Your task to perform on an android device: turn on the 24-hour format for clock Image 0: 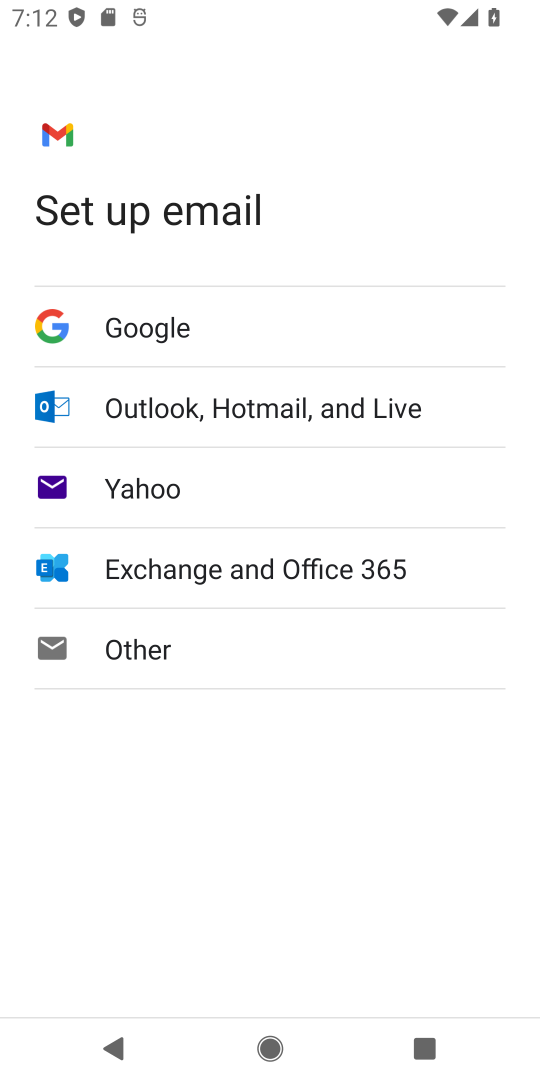
Step 0: press home button
Your task to perform on an android device: turn on the 24-hour format for clock Image 1: 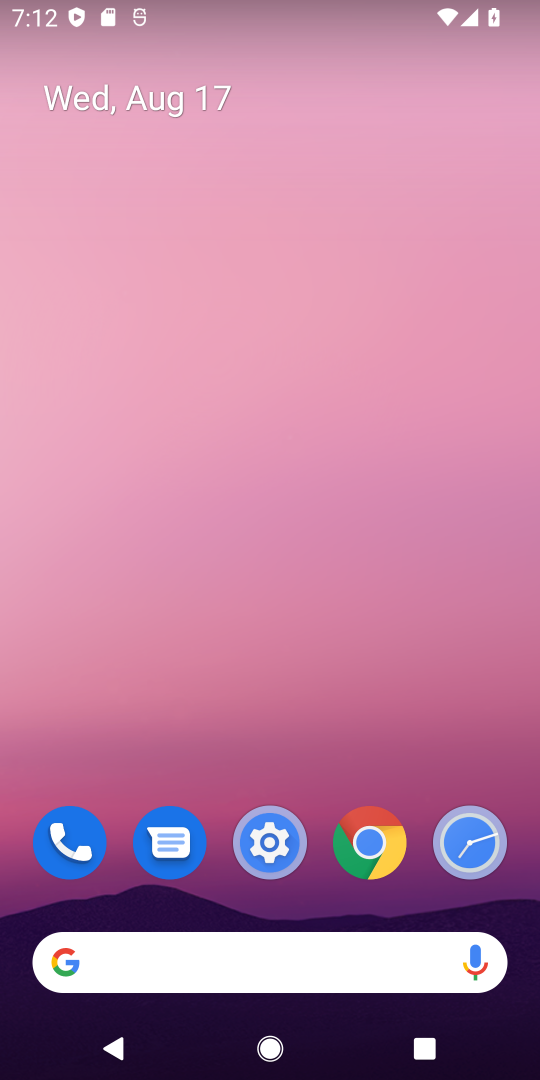
Step 1: click (460, 847)
Your task to perform on an android device: turn on the 24-hour format for clock Image 2: 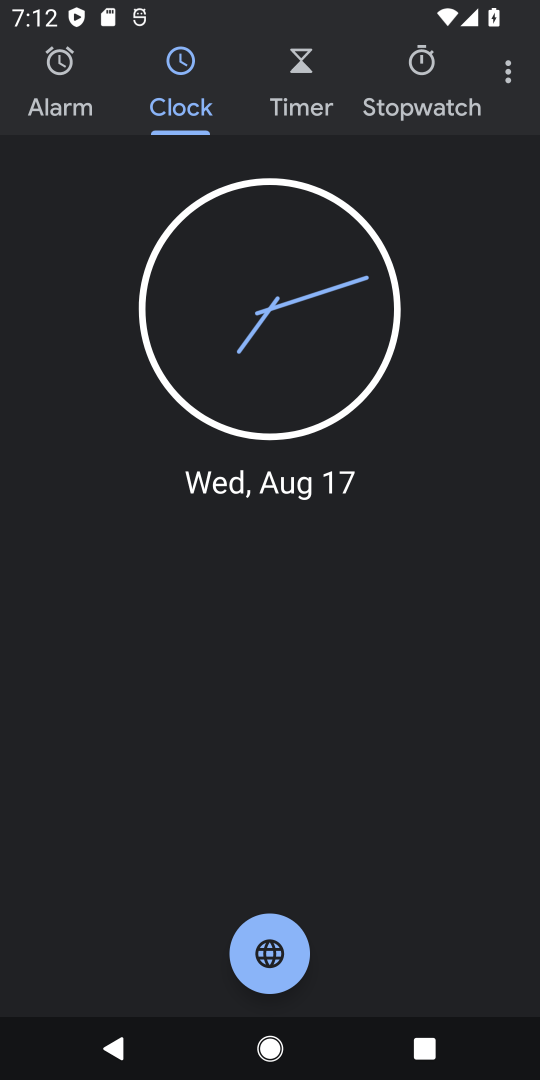
Step 2: click (508, 75)
Your task to perform on an android device: turn on the 24-hour format for clock Image 3: 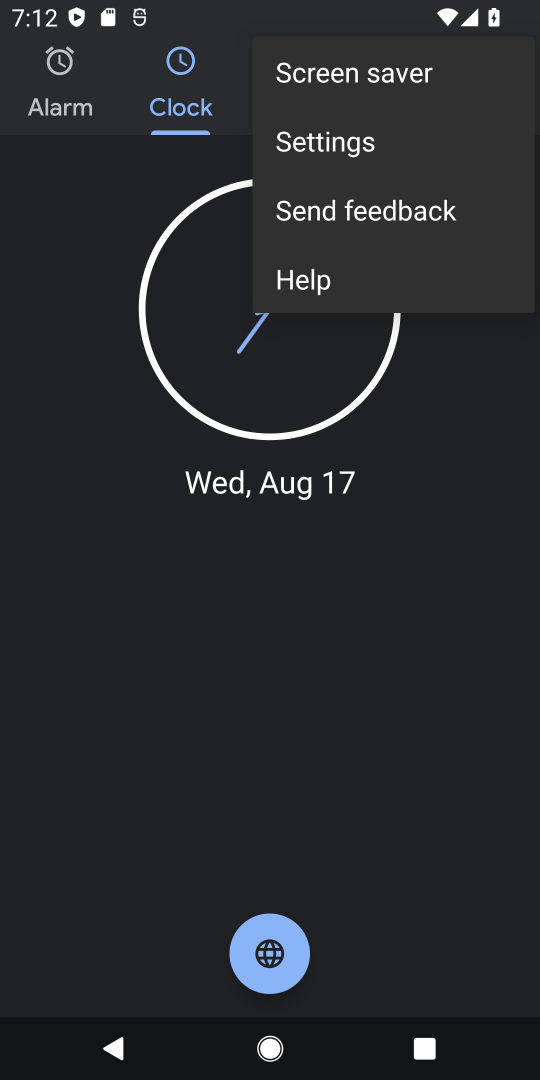
Step 3: click (362, 156)
Your task to perform on an android device: turn on the 24-hour format for clock Image 4: 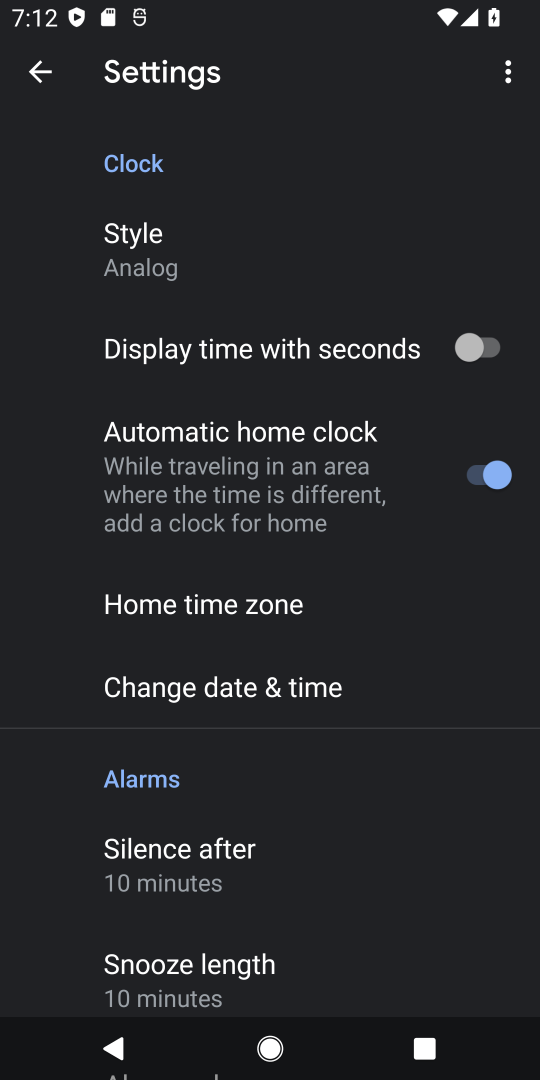
Step 4: click (324, 686)
Your task to perform on an android device: turn on the 24-hour format for clock Image 5: 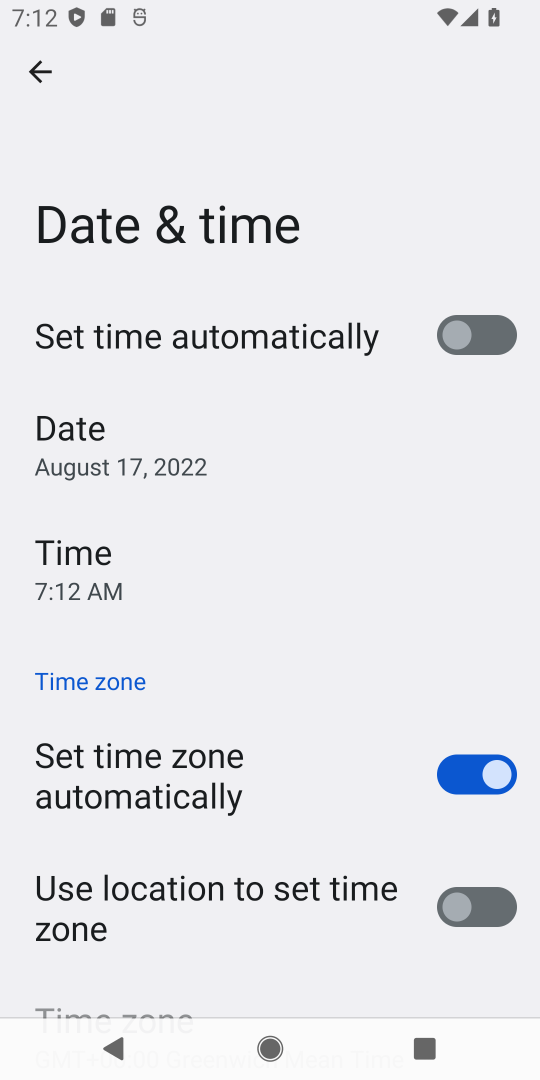
Step 5: drag from (305, 863) to (387, 4)
Your task to perform on an android device: turn on the 24-hour format for clock Image 6: 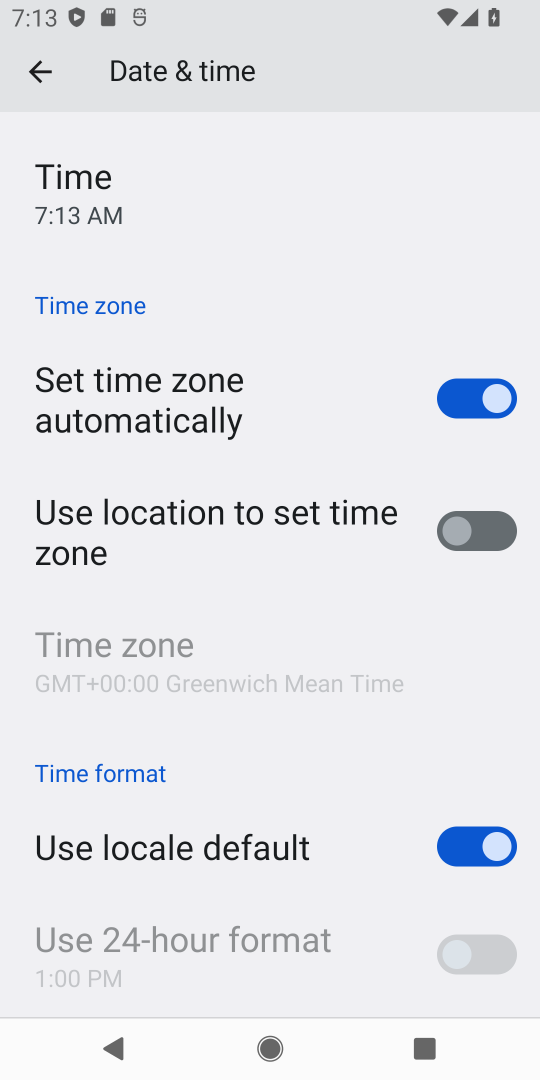
Step 6: click (487, 843)
Your task to perform on an android device: turn on the 24-hour format for clock Image 7: 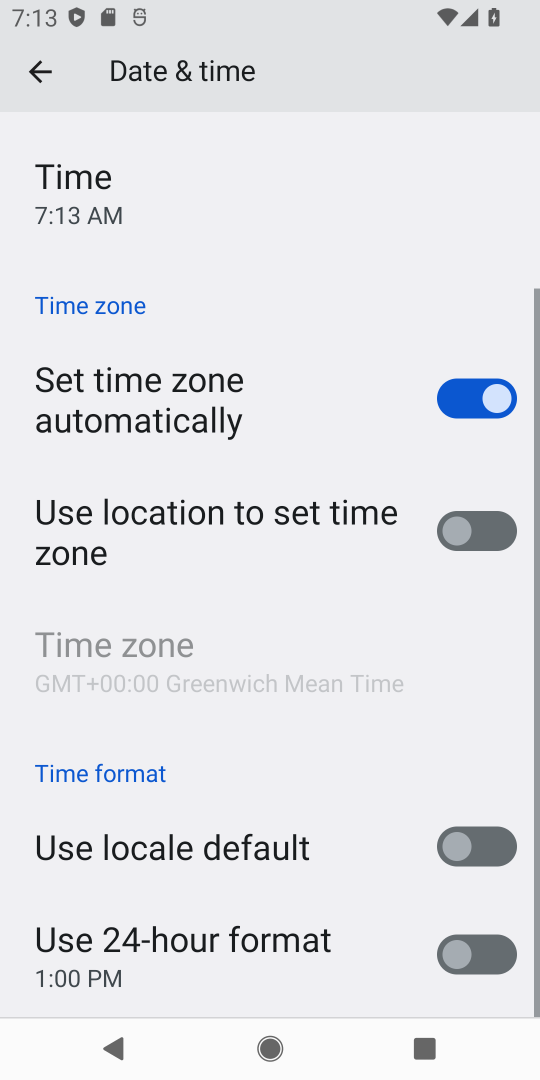
Step 7: click (487, 953)
Your task to perform on an android device: turn on the 24-hour format for clock Image 8: 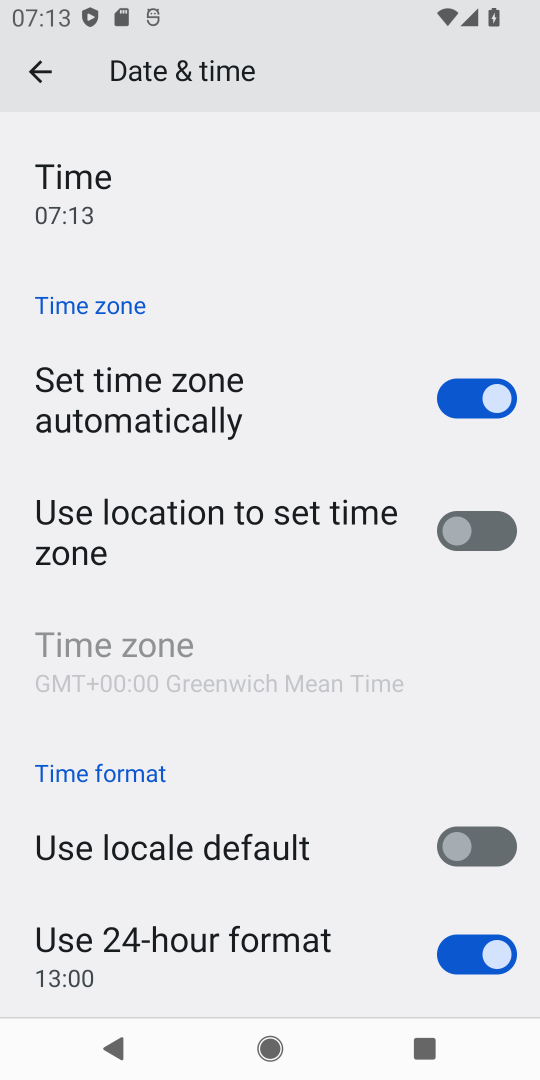
Step 8: task complete